Your task to perform on an android device: Open Android settings Image 0: 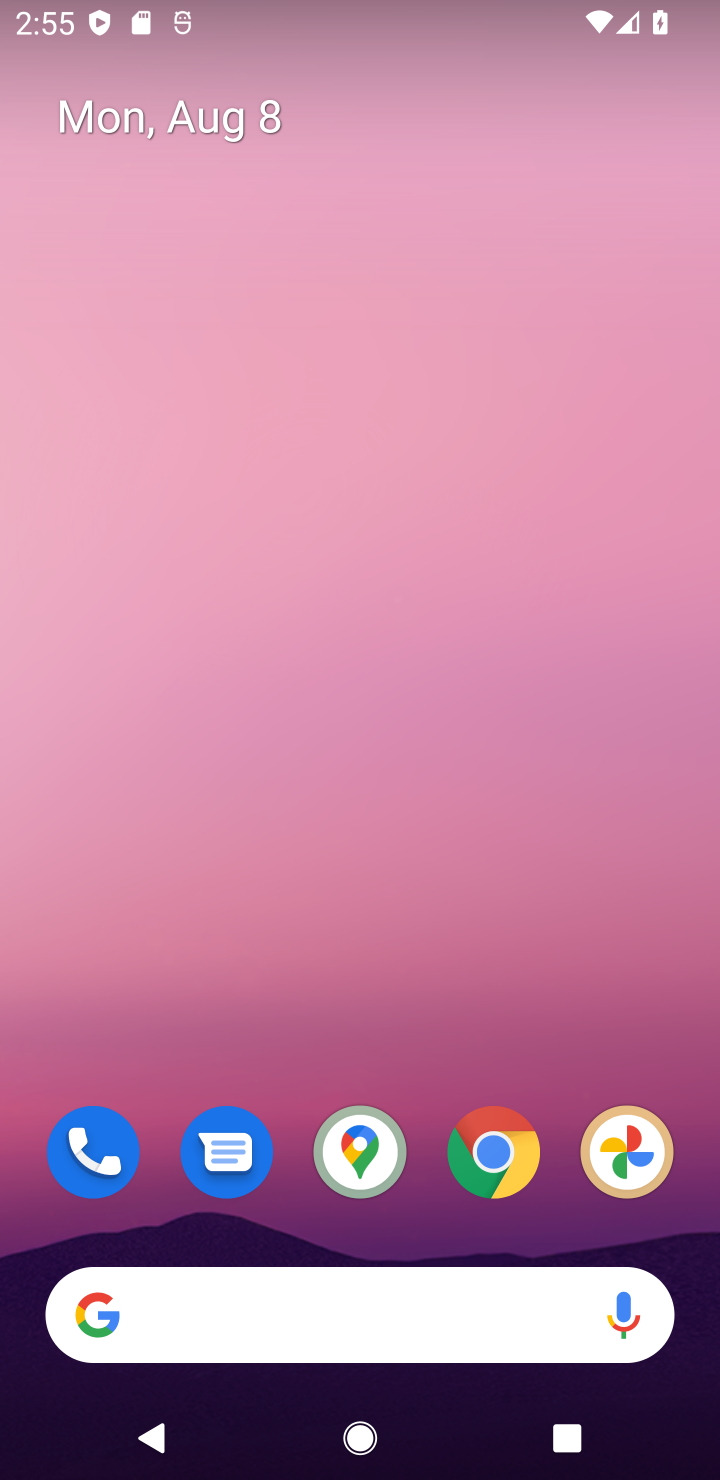
Step 0: drag from (415, 1164) to (590, 0)
Your task to perform on an android device: Open Android settings Image 1: 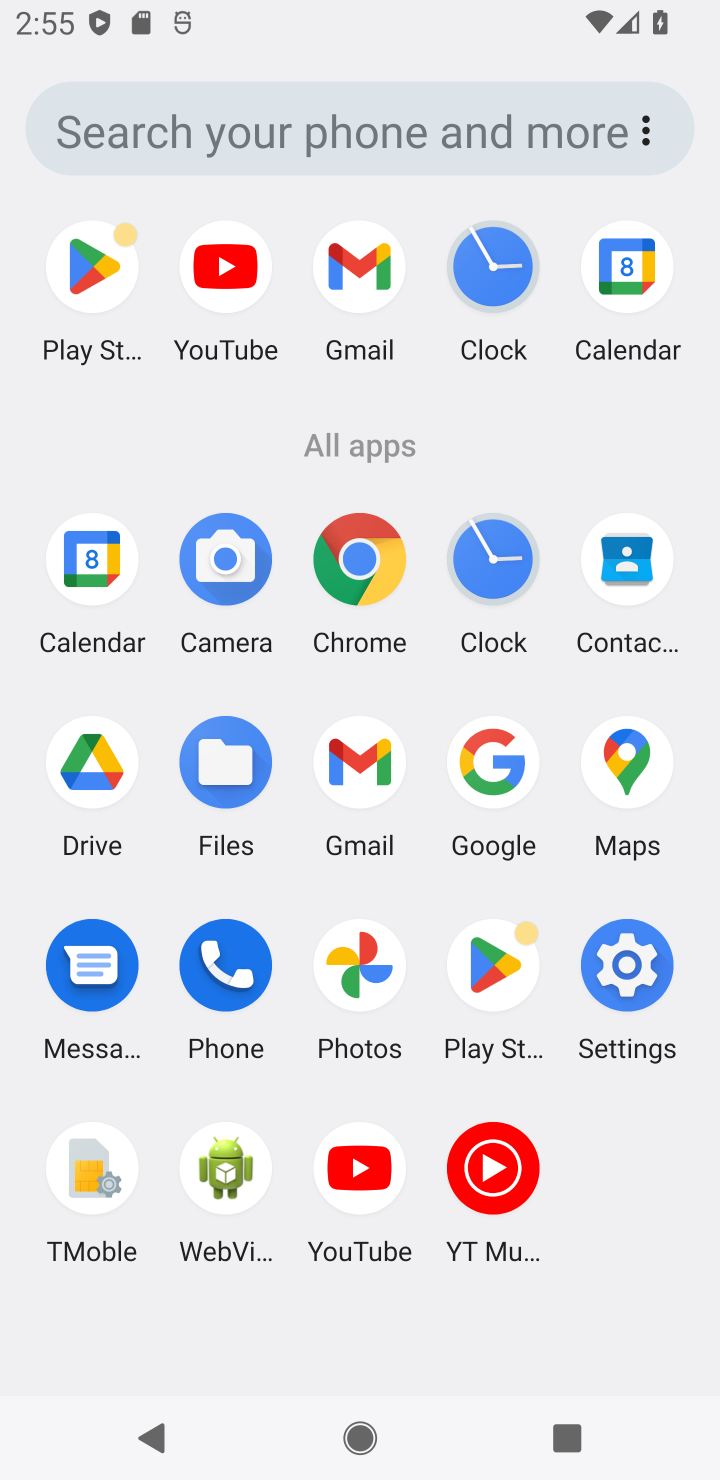
Step 1: click (626, 989)
Your task to perform on an android device: Open Android settings Image 2: 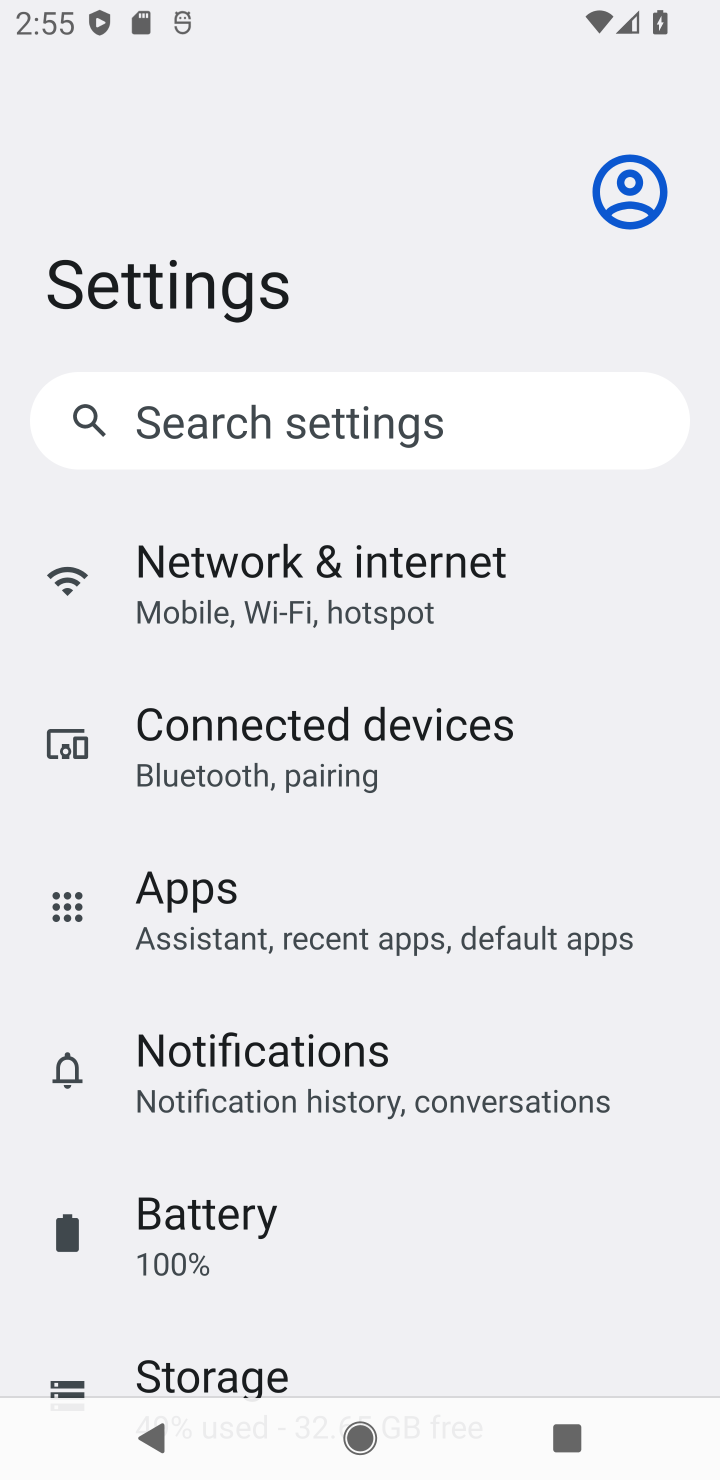
Step 2: drag from (277, 1229) to (402, 331)
Your task to perform on an android device: Open Android settings Image 3: 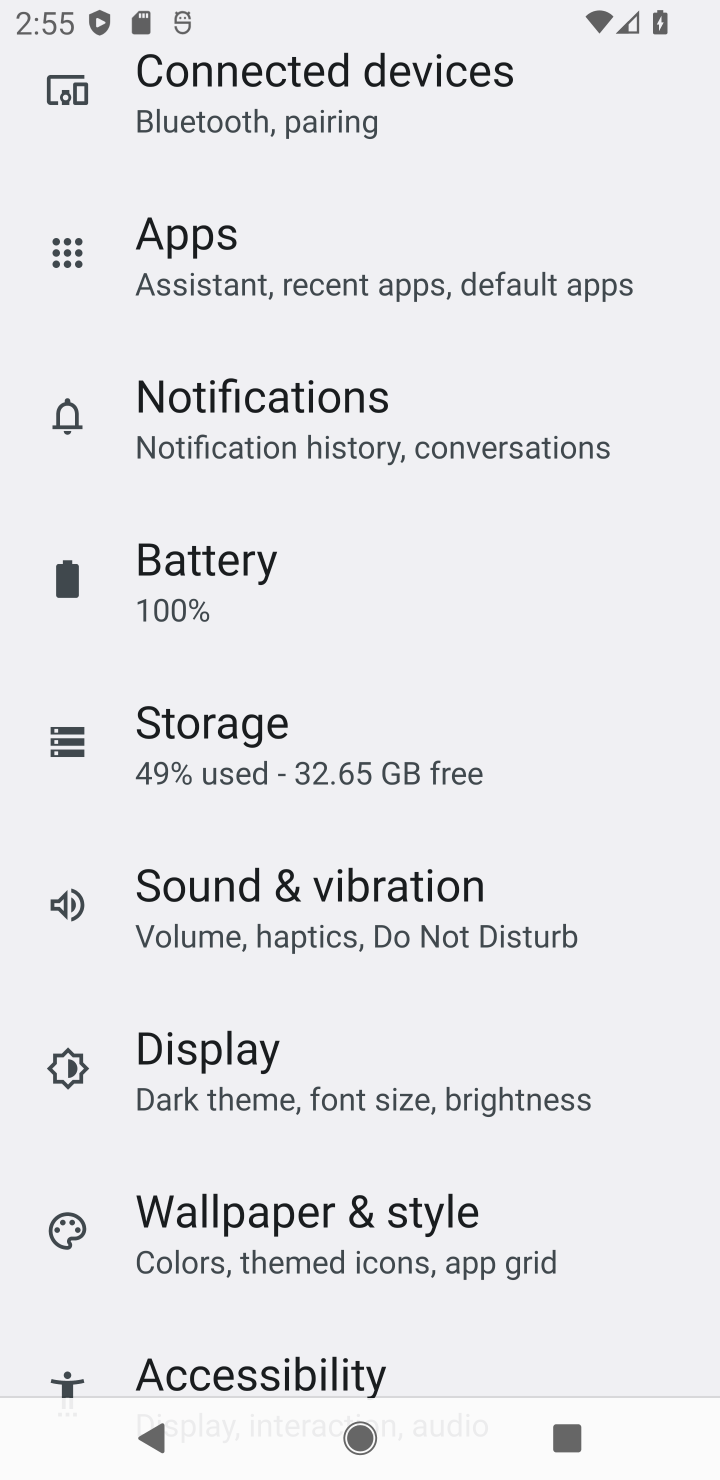
Step 3: drag from (362, 1212) to (461, 90)
Your task to perform on an android device: Open Android settings Image 4: 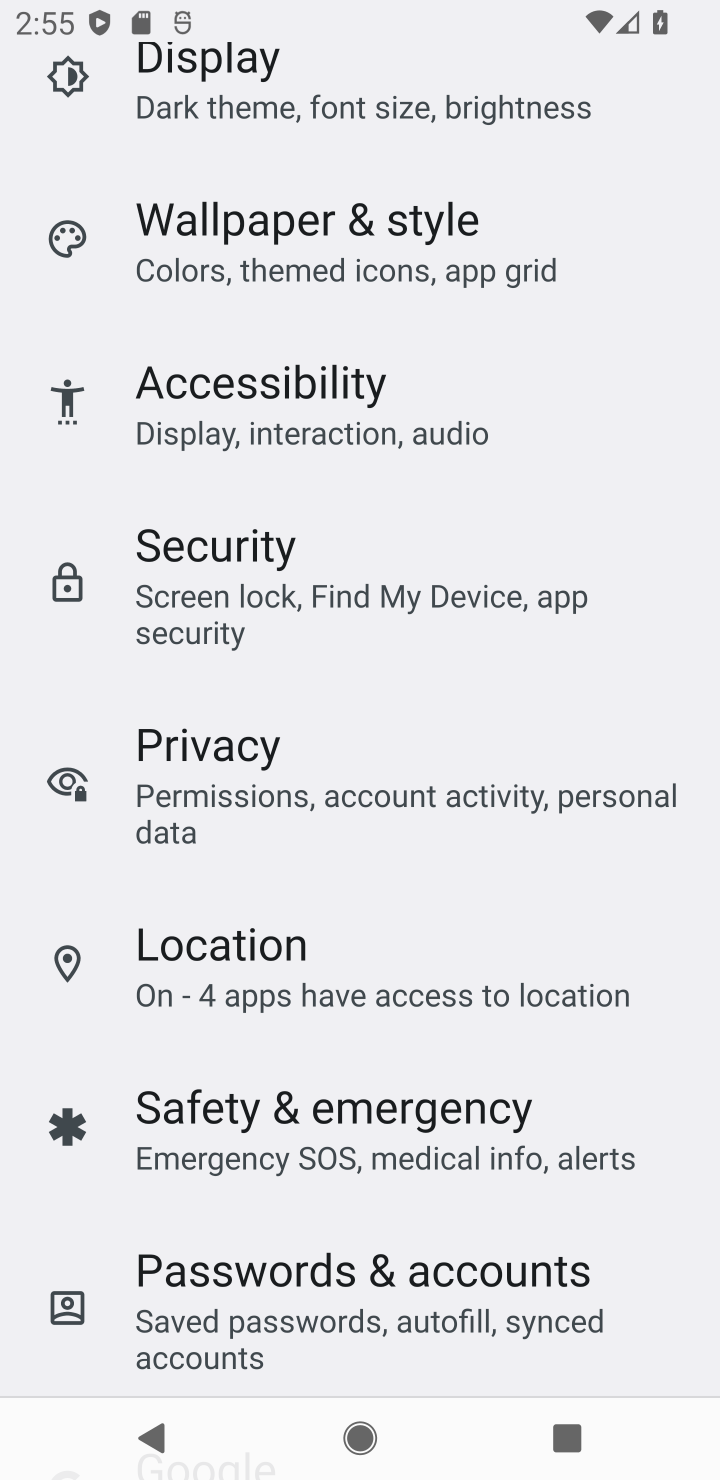
Step 4: drag from (340, 1219) to (385, 453)
Your task to perform on an android device: Open Android settings Image 5: 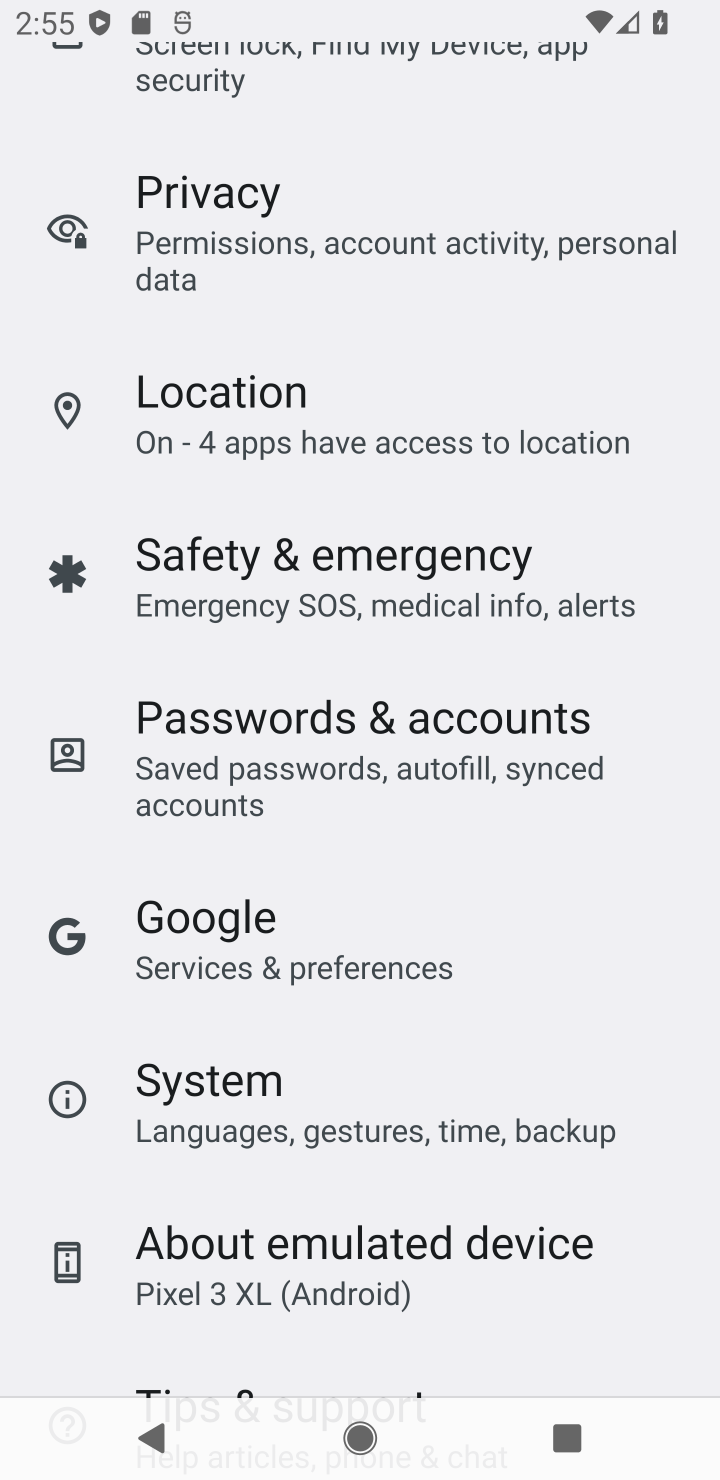
Step 5: drag from (356, 1250) to (422, 604)
Your task to perform on an android device: Open Android settings Image 6: 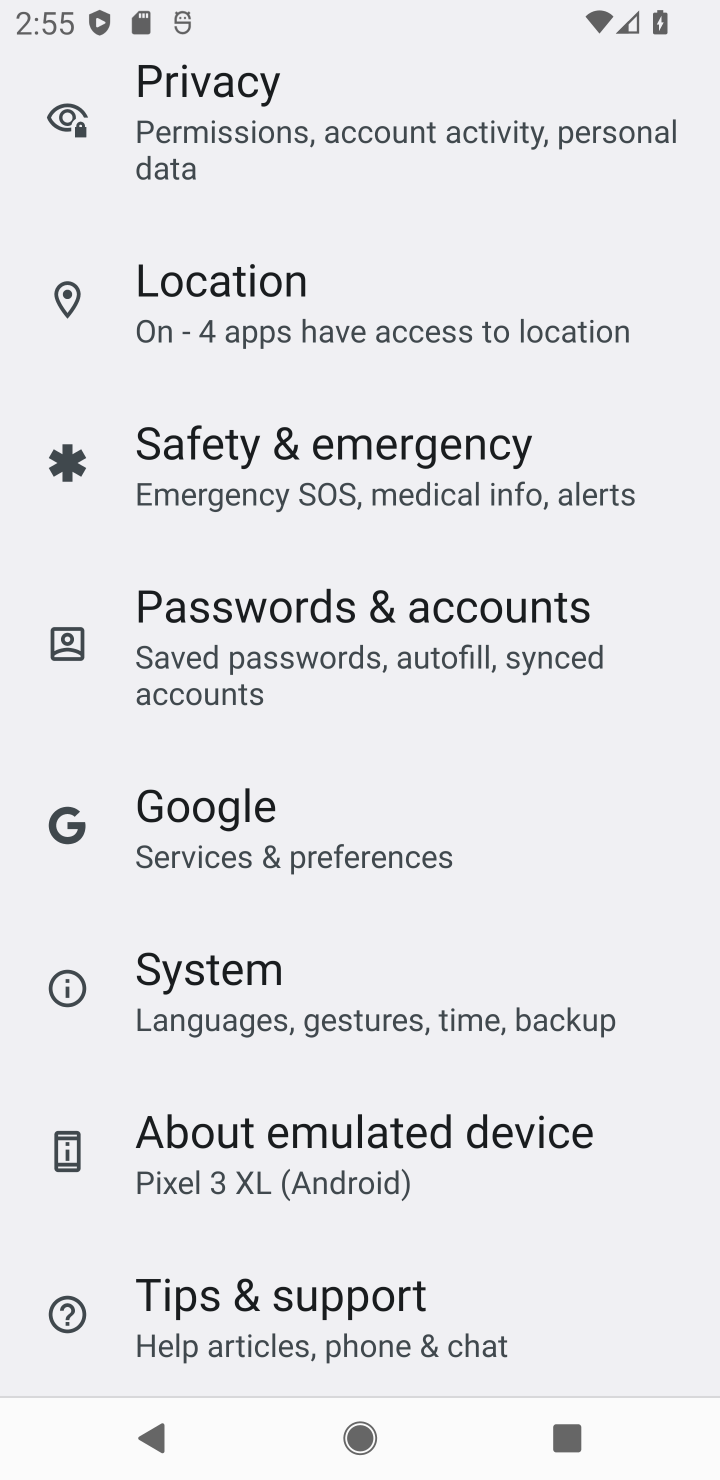
Step 6: click (299, 1159)
Your task to perform on an android device: Open Android settings Image 7: 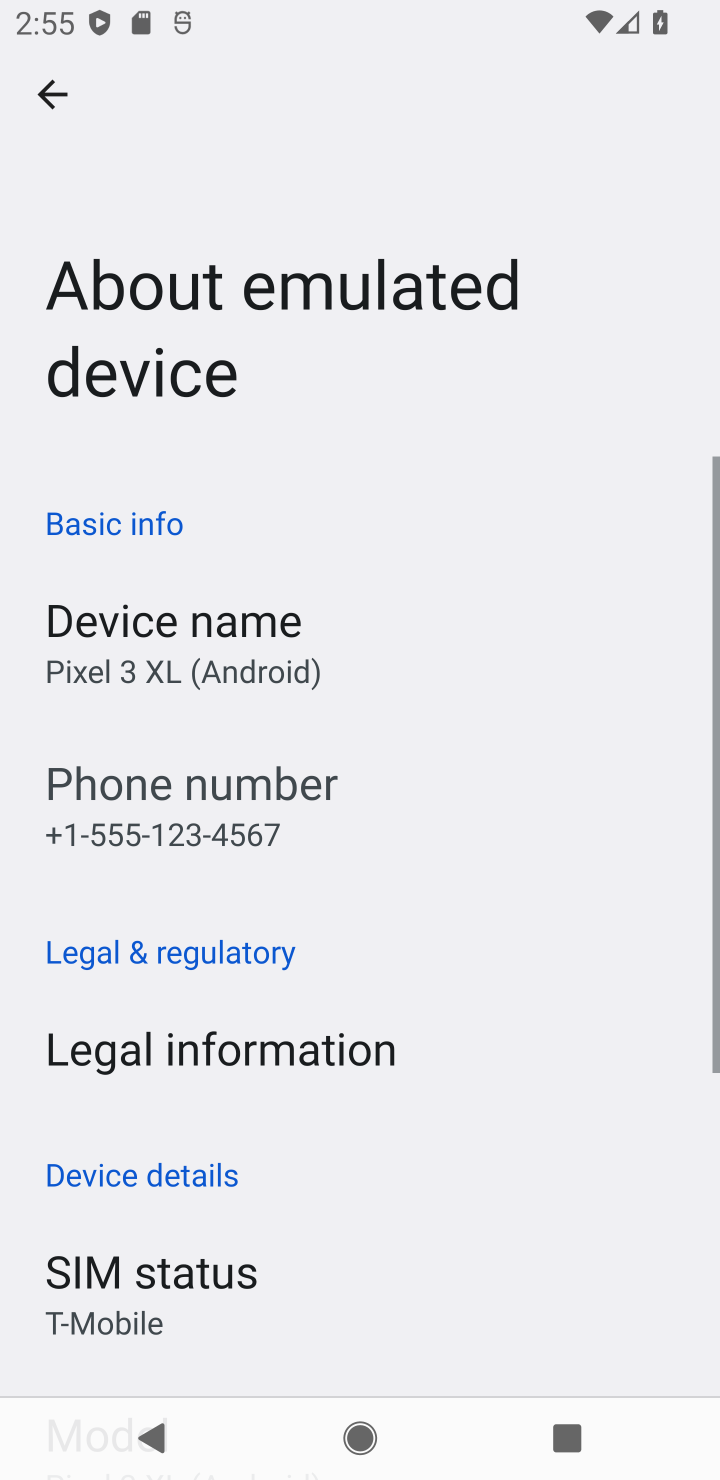
Step 7: drag from (223, 1166) to (310, 454)
Your task to perform on an android device: Open Android settings Image 8: 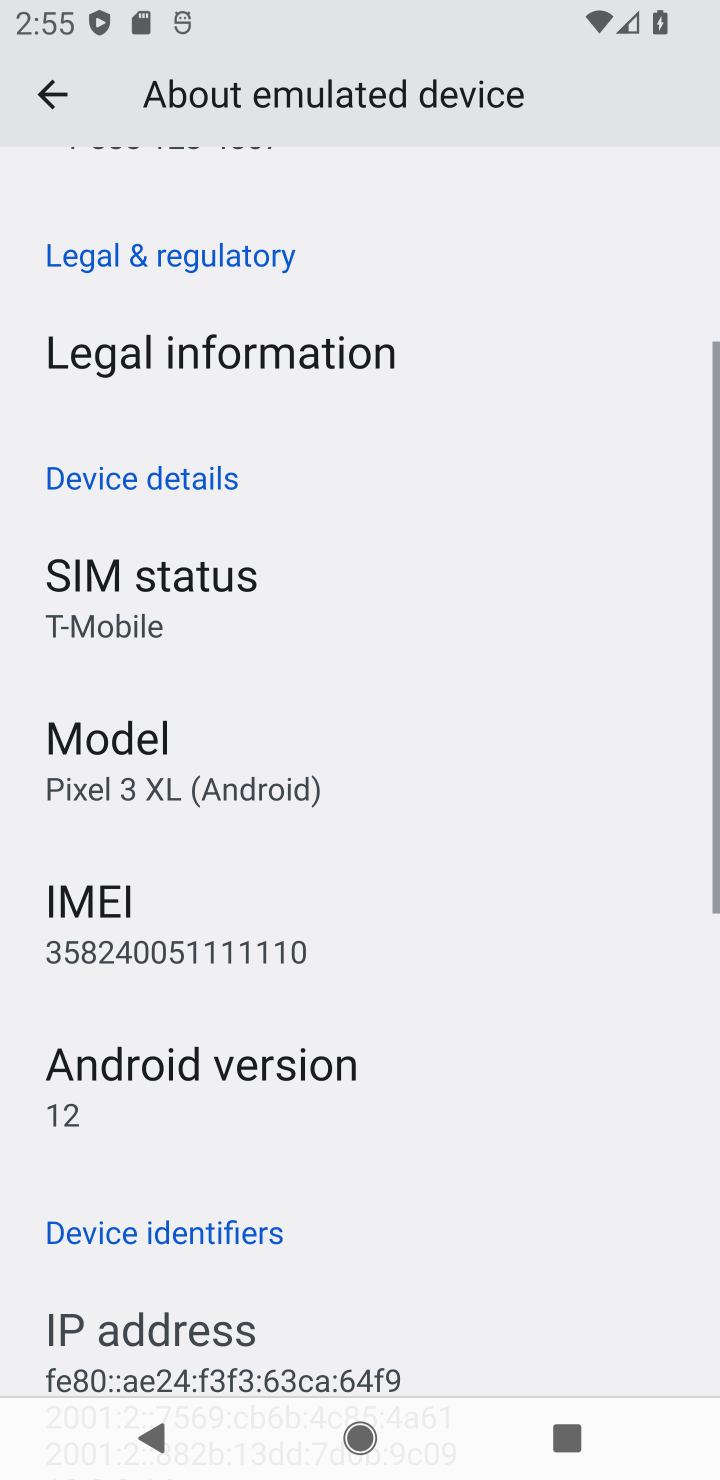
Step 8: click (202, 1085)
Your task to perform on an android device: Open Android settings Image 9: 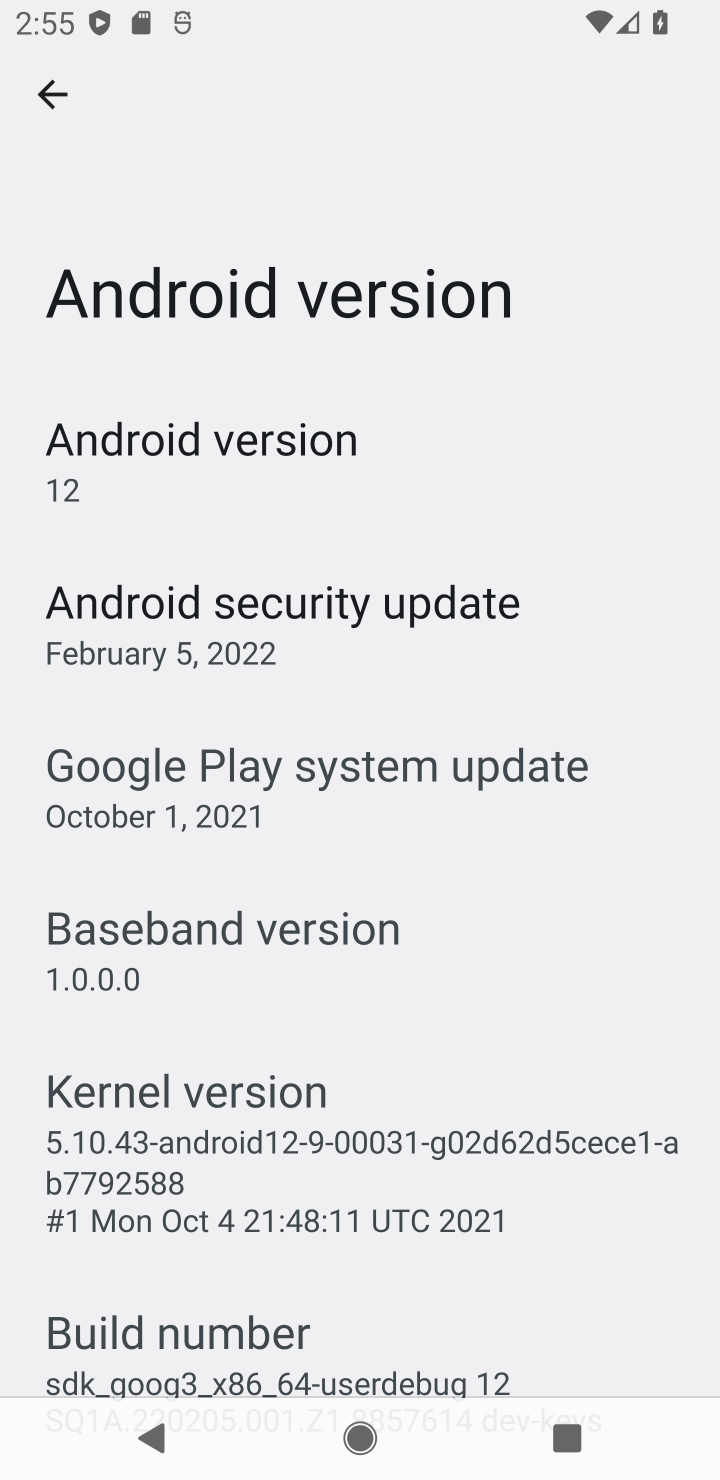
Step 9: task complete